Your task to perform on an android device: Set the phone to "Do not disturb". Image 0: 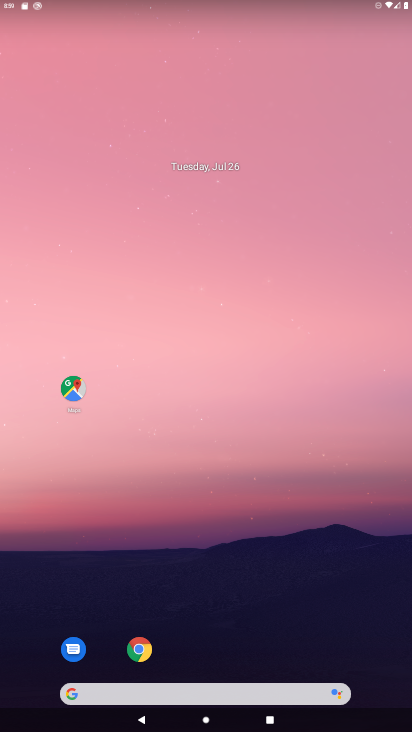
Step 0: drag from (159, 10) to (238, 660)
Your task to perform on an android device: Set the phone to "Do not disturb". Image 1: 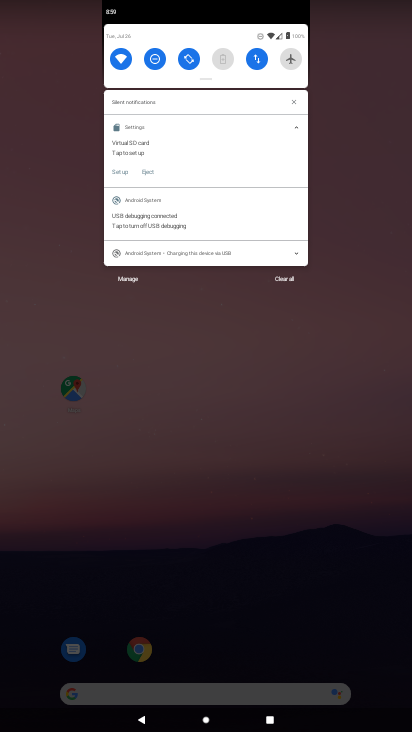
Step 1: task complete